Your task to perform on an android device: turn pop-ups on in chrome Image 0: 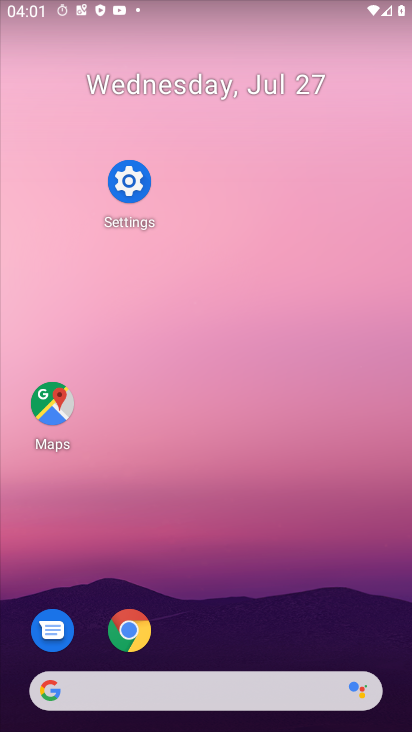
Step 0: drag from (206, 641) to (116, 200)
Your task to perform on an android device: turn pop-ups on in chrome Image 1: 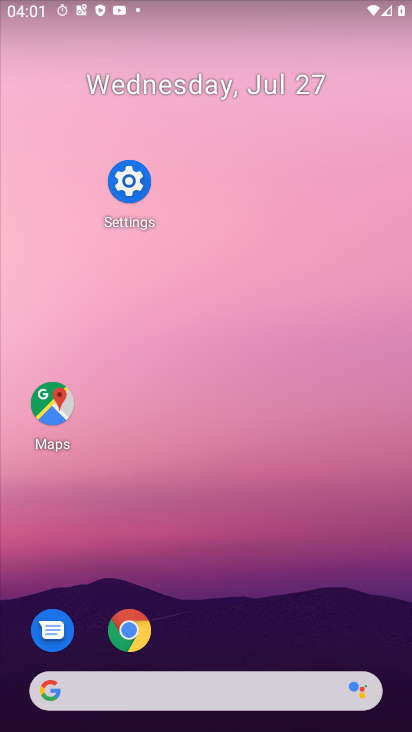
Step 1: drag from (141, 456) to (142, 237)
Your task to perform on an android device: turn pop-ups on in chrome Image 2: 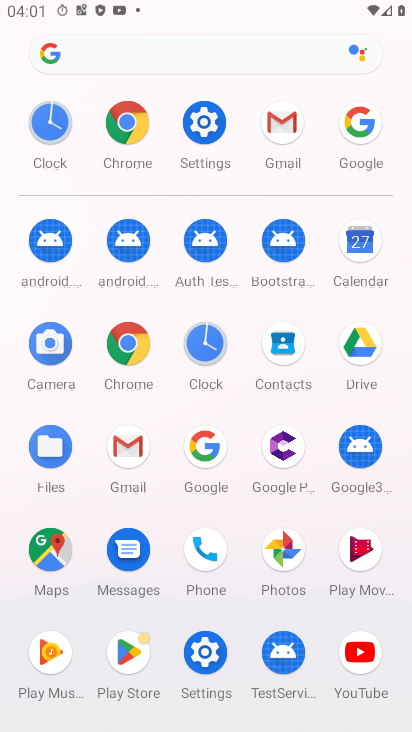
Step 2: click (120, 123)
Your task to perform on an android device: turn pop-ups on in chrome Image 3: 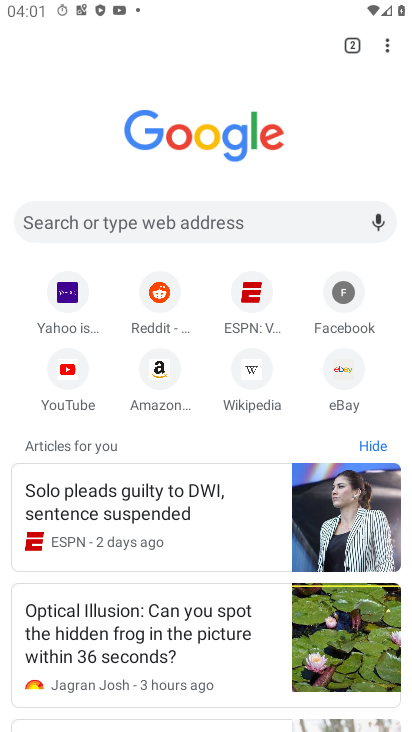
Step 3: click (388, 48)
Your task to perform on an android device: turn pop-ups on in chrome Image 4: 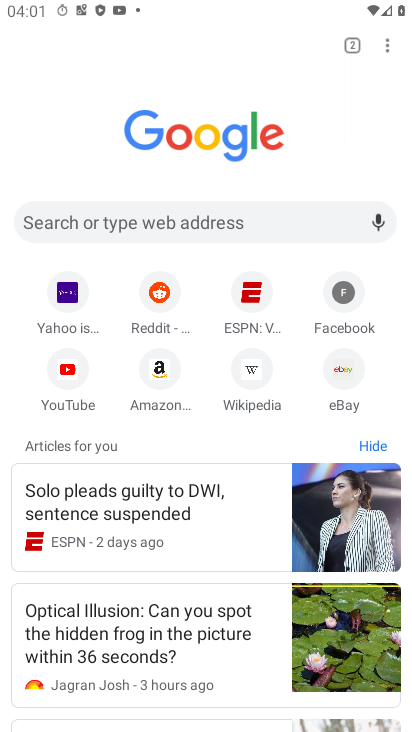
Step 4: click (388, 48)
Your task to perform on an android device: turn pop-ups on in chrome Image 5: 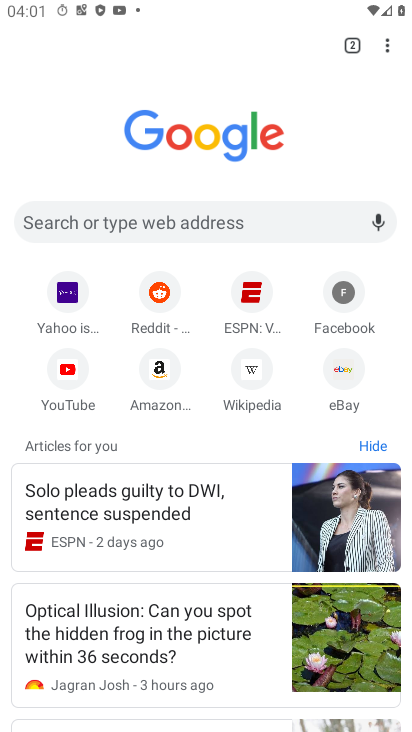
Step 5: drag from (383, 42) to (225, 379)
Your task to perform on an android device: turn pop-ups on in chrome Image 6: 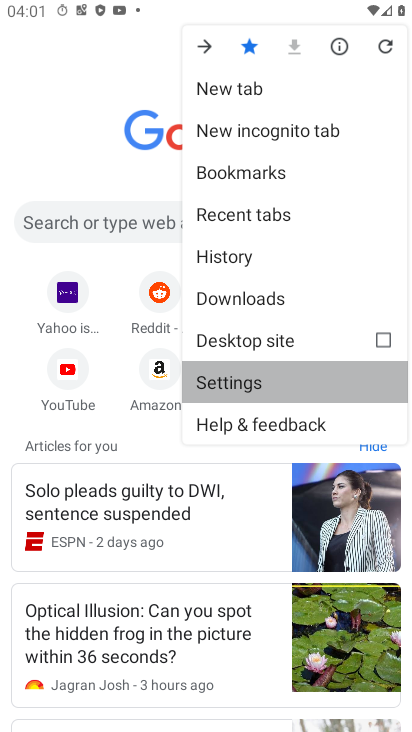
Step 6: click (225, 382)
Your task to perform on an android device: turn pop-ups on in chrome Image 7: 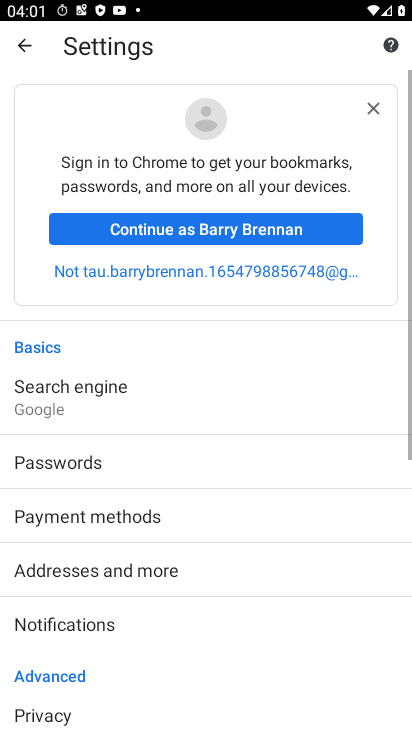
Step 7: drag from (96, 559) to (51, 166)
Your task to perform on an android device: turn pop-ups on in chrome Image 8: 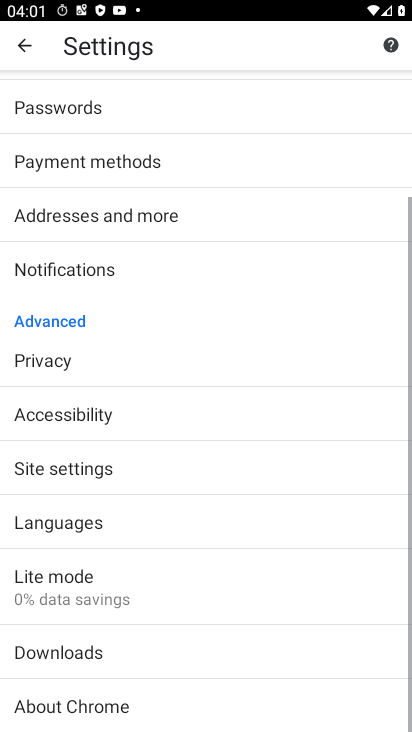
Step 8: drag from (162, 521) to (131, 200)
Your task to perform on an android device: turn pop-ups on in chrome Image 9: 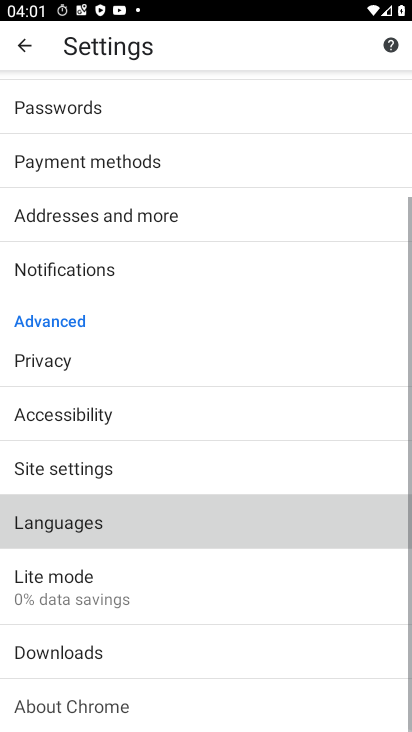
Step 9: drag from (165, 499) to (138, 251)
Your task to perform on an android device: turn pop-ups on in chrome Image 10: 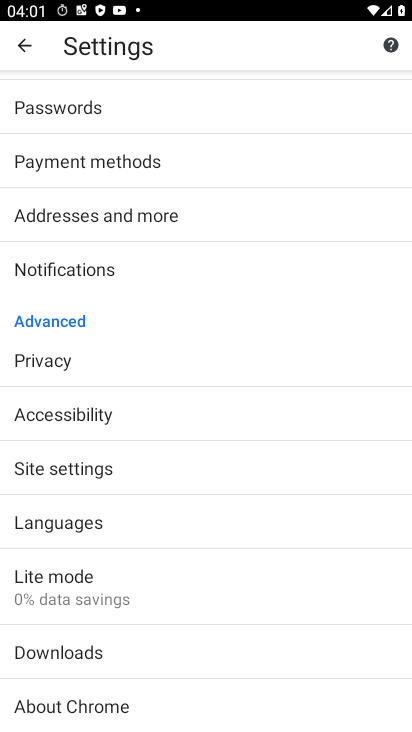
Step 10: drag from (71, 601) to (24, 147)
Your task to perform on an android device: turn pop-ups on in chrome Image 11: 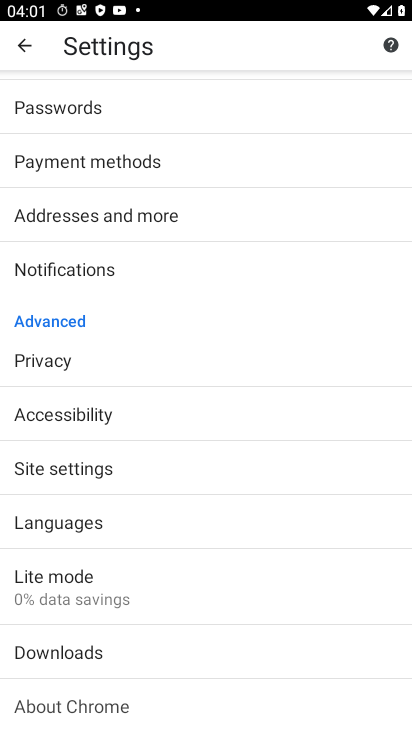
Step 11: drag from (118, 508) to (193, 85)
Your task to perform on an android device: turn pop-ups on in chrome Image 12: 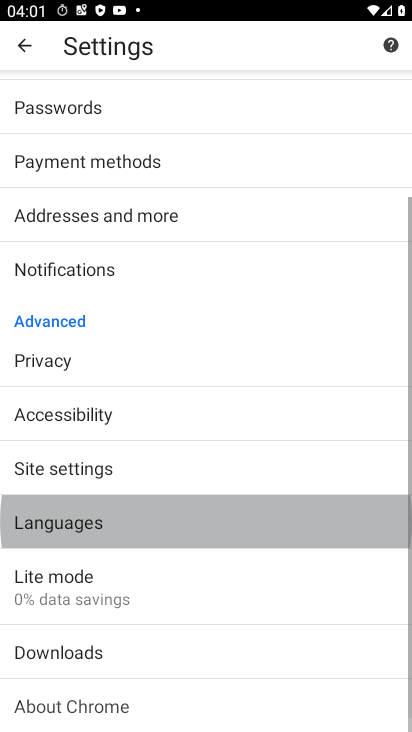
Step 12: drag from (211, 499) to (140, 238)
Your task to perform on an android device: turn pop-ups on in chrome Image 13: 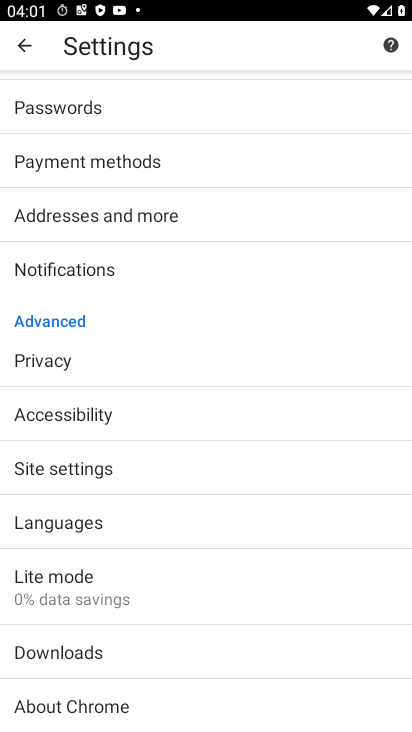
Step 13: drag from (113, 621) to (119, 281)
Your task to perform on an android device: turn pop-ups on in chrome Image 14: 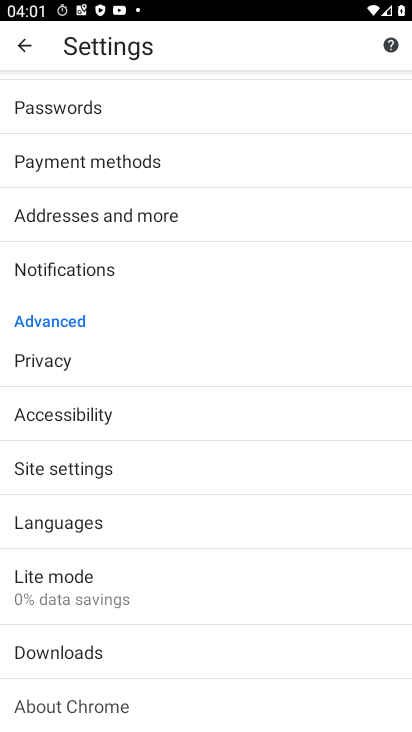
Step 14: drag from (126, 531) to (141, 283)
Your task to perform on an android device: turn pop-ups on in chrome Image 15: 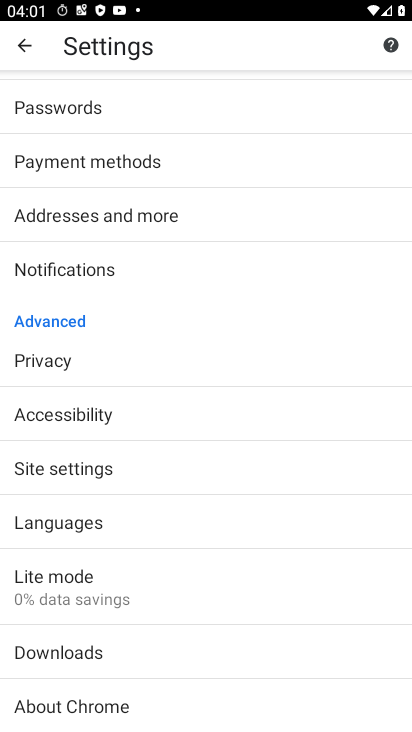
Step 15: click (54, 460)
Your task to perform on an android device: turn pop-ups on in chrome Image 16: 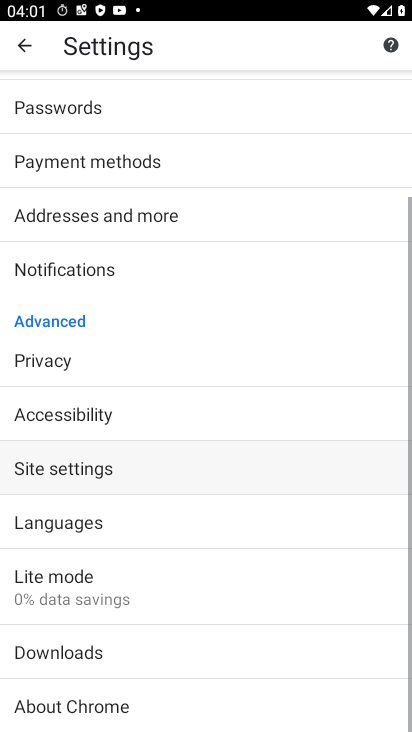
Step 16: click (54, 460)
Your task to perform on an android device: turn pop-ups on in chrome Image 17: 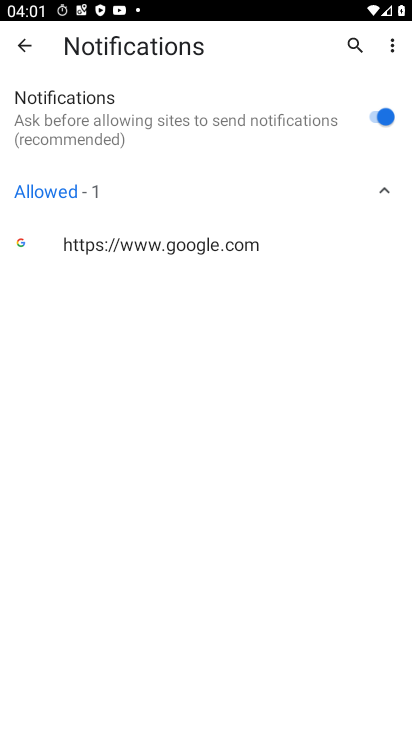
Step 17: click (20, 48)
Your task to perform on an android device: turn pop-ups on in chrome Image 18: 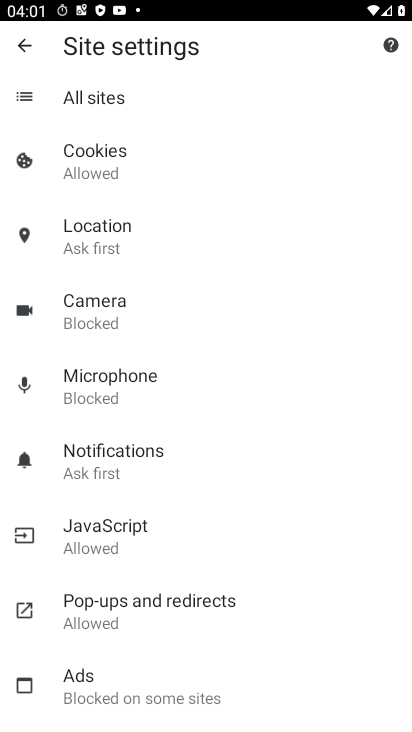
Step 18: click (78, 599)
Your task to perform on an android device: turn pop-ups on in chrome Image 19: 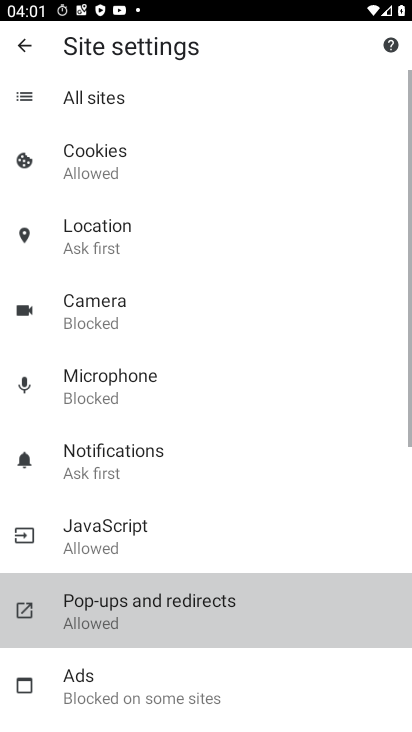
Step 19: click (86, 603)
Your task to perform on an android device: turn pop-ups on in chrome Image 20: 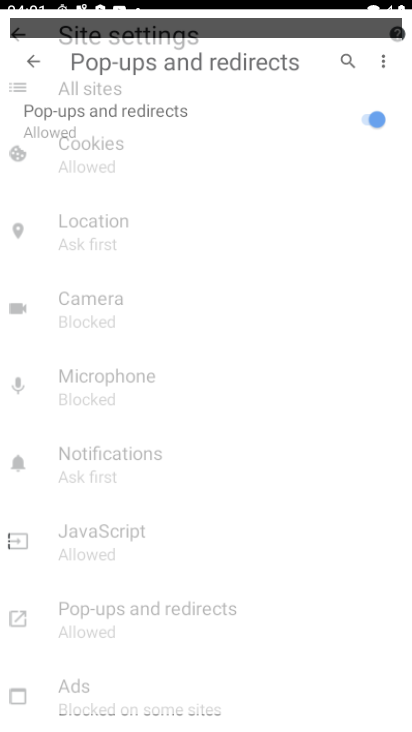
Step 20: click (89, 602)
Your task to perform on an android device: turn pop-ups on in chrome Image 21: 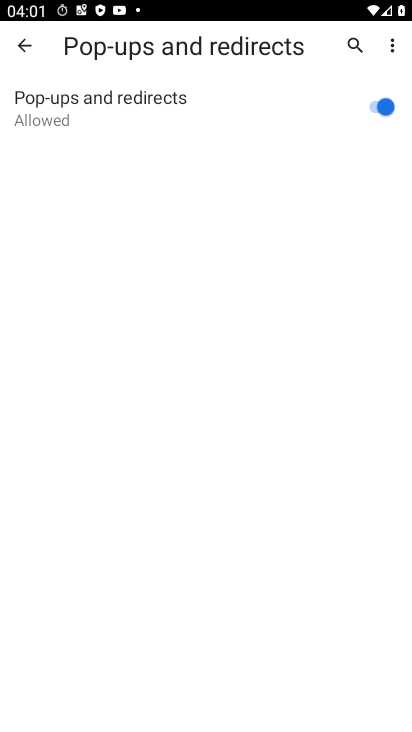
Step 21: task complete